Your task to perform on an android device: stop showing notifications on the lock screen Image 0: 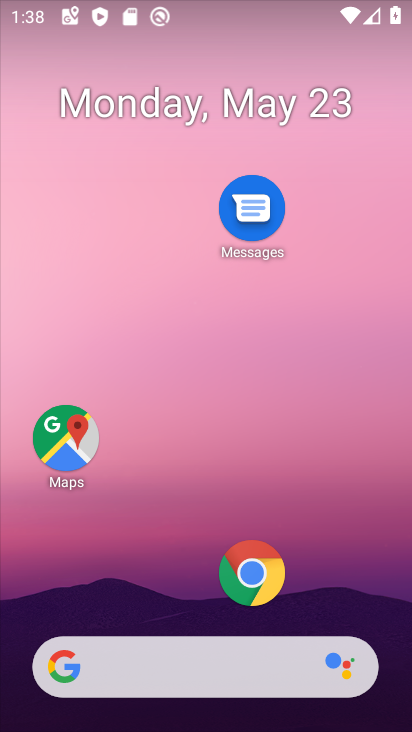
Step 0: drag from (149, 615) to (240, 89)
Your task to perform on an android device: stop showing notifications on the lock screen Image 1: 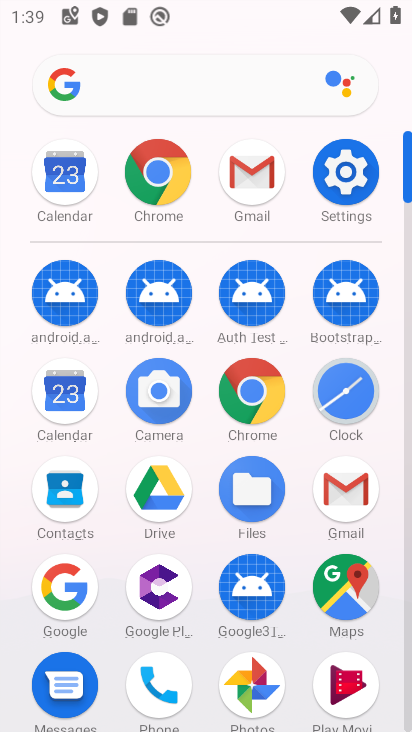
Step 1: click (324, 184)
Your task to perform on an android device: stop showing notifications on the lock screen Image 2: 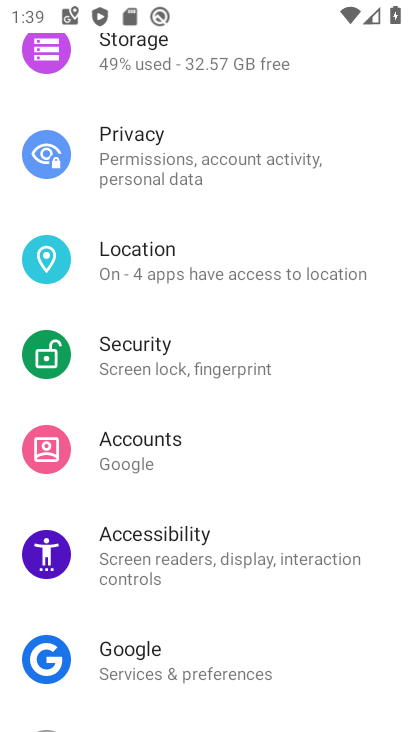
Step 2: drag from (299, 315) to (329, 612)
Your task to perform on an android device: stop showing notifications on the lock screen Image 3: 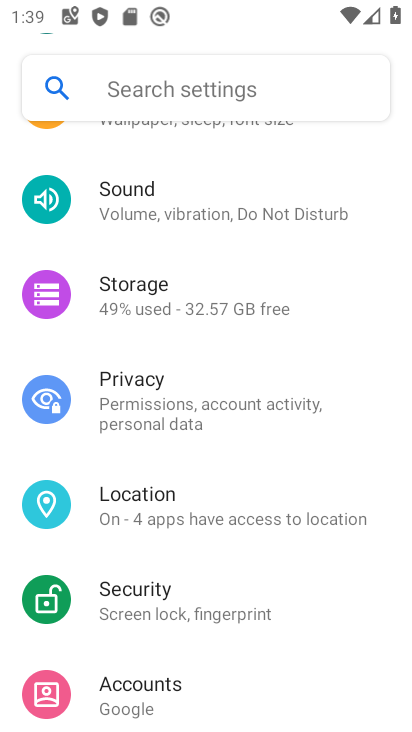
Step 3: drag from (293, 277) to (303, 604)
Your task to perform on an android device: stop showing notifications on the lock screen Image 4: 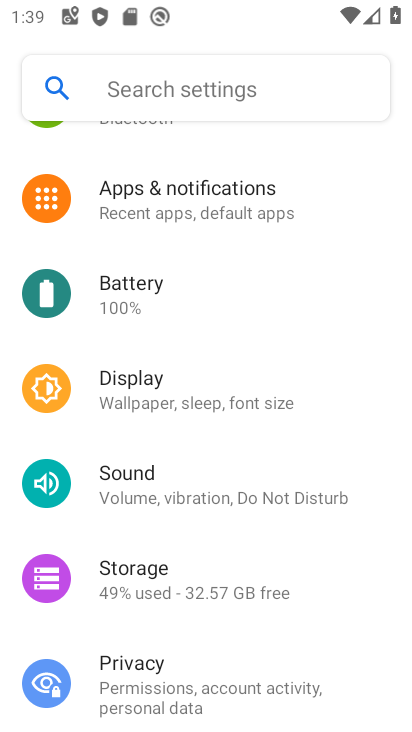
Step 4: drag from (288, 246) to (271, 183)
Your task to perform on an android device: stop showing notifications on the lock screen Image 5: 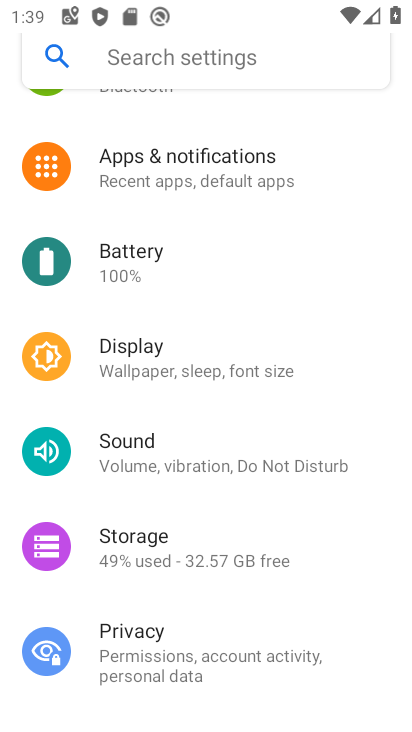
Step 5: click (264, 172)
Your task to perform on an android device: stop showing notifications on the lock screen Image 6: 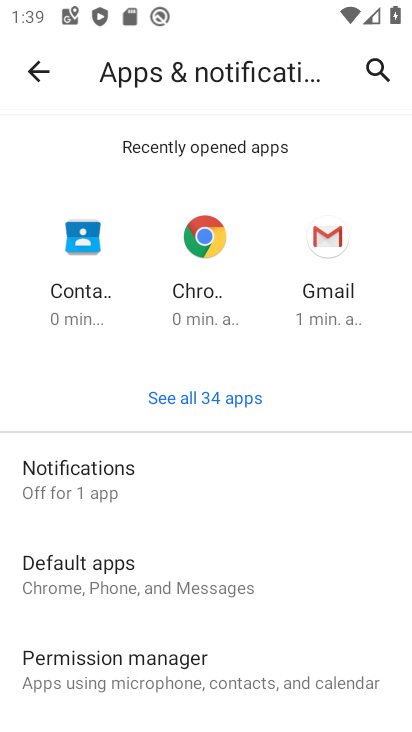
Step 6: drag from (252, 505) to (288, 183)
Your task to perform on an android device: stop showing notifications on the lock screen Image 7: 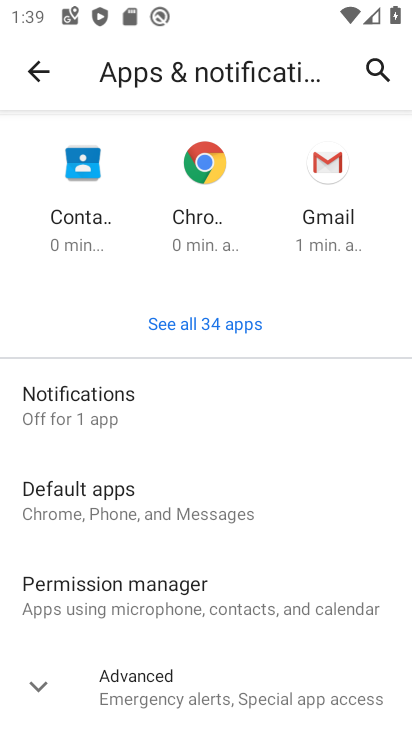
Step 7: click (191, 696)
Your task to perform on an android device: stop showing notifications on the lock screen Image 8: 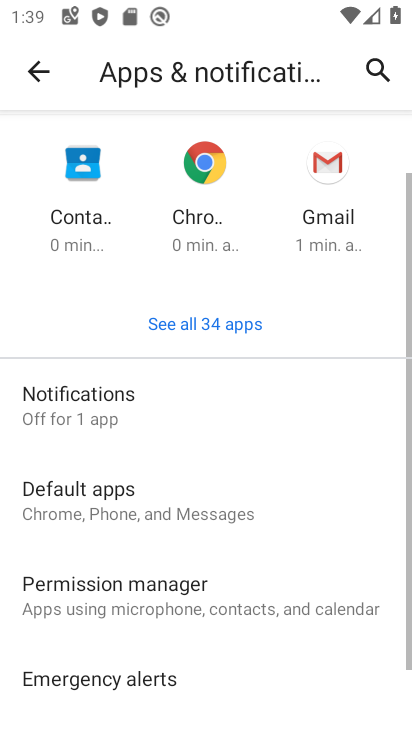
Step 8: drag from (337, 390) to (341, 254)
Your task to perform on an android device: stop showing notifications on the lock screen Image 9: 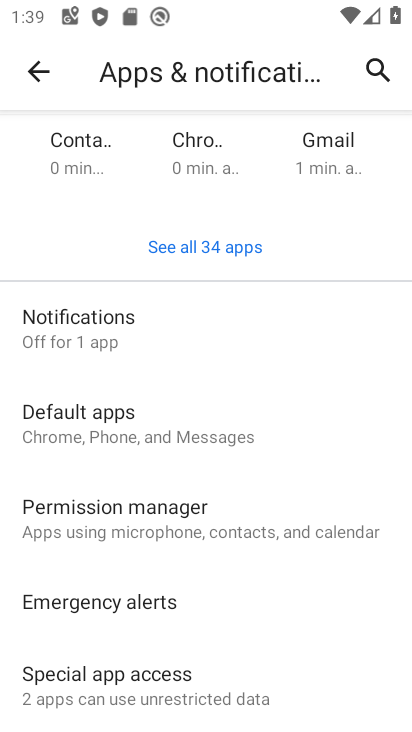
Step 9: click (110, 310)
Your task to perform on an android device: stop showing notifications on the lock screen Image 10: 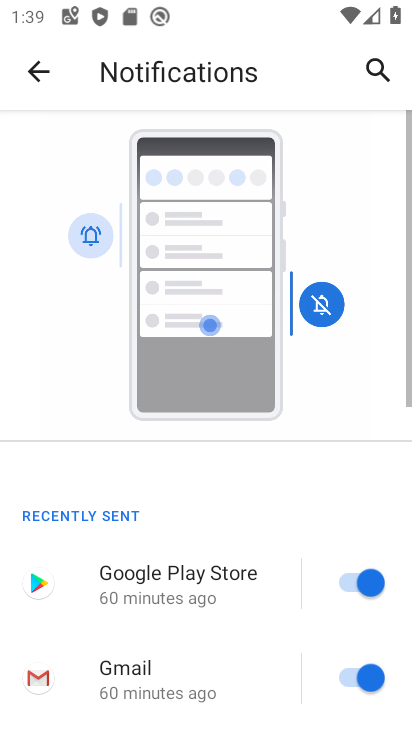
Step 10: drag from (305, 469) to (307, 205)
Your task to perform on an android device: stop showing notifications on the lock screen Image 11: 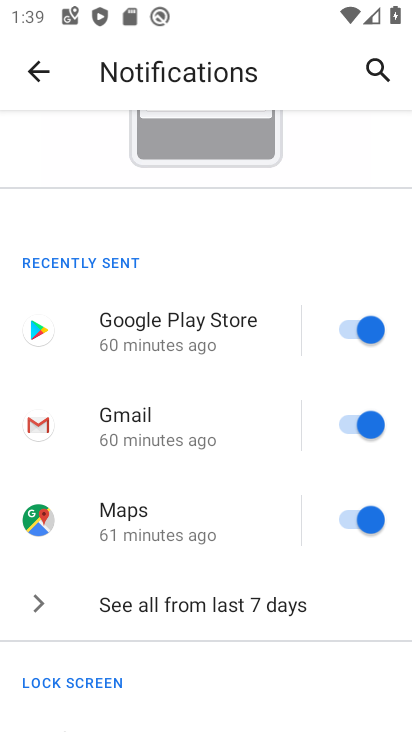
Step 11: drag from (237, 566) to (221, 261)
Your task to perform on an android device: stop showing notifications on the lock screen Image 12: 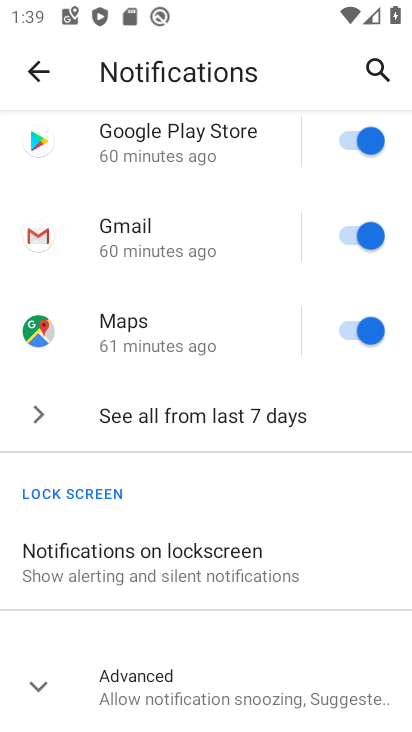
Step 12: click (197, 689)
Your task to perform on an android device: stop showing notifications on the lock screen Image 13: 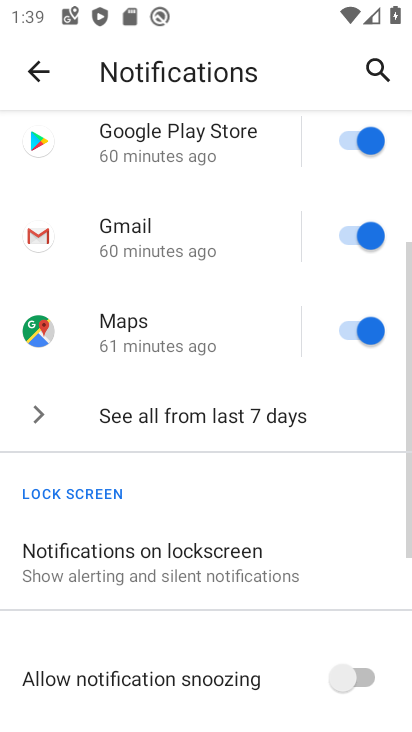
Step 13: drag from (262, 634) to (283, 391)
Your task to perform on an android device: stop showing notifications on the lock screen Image 14: 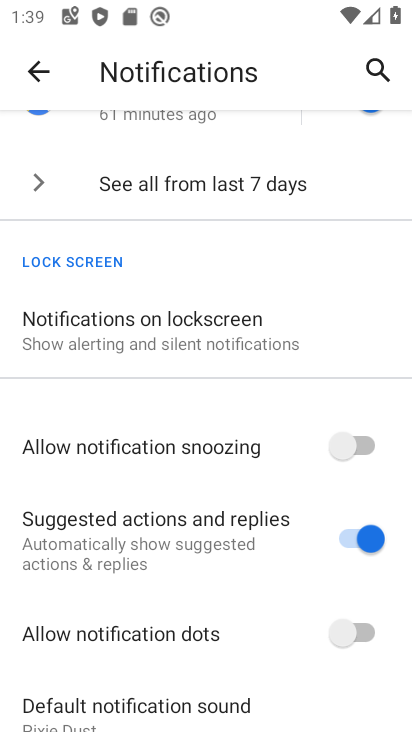
Step 14: click (183, 329)
Your task to perform on an android device: stop showing notifications on the lock screen Image 15: 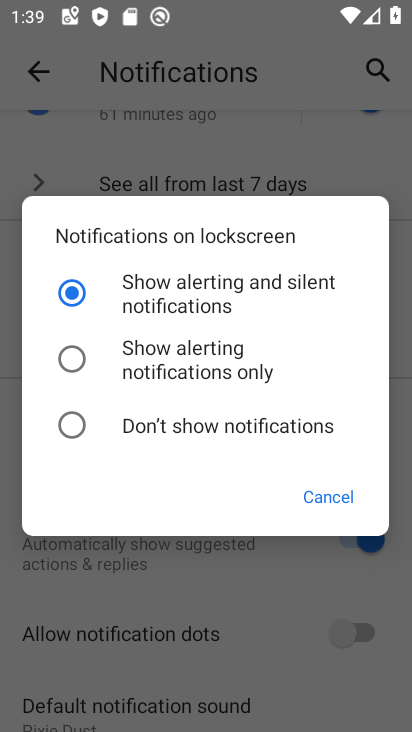
Step 15: click (79, 424)
Your task to perform on an android device: stop showing notifications on the lock screen Image 16: 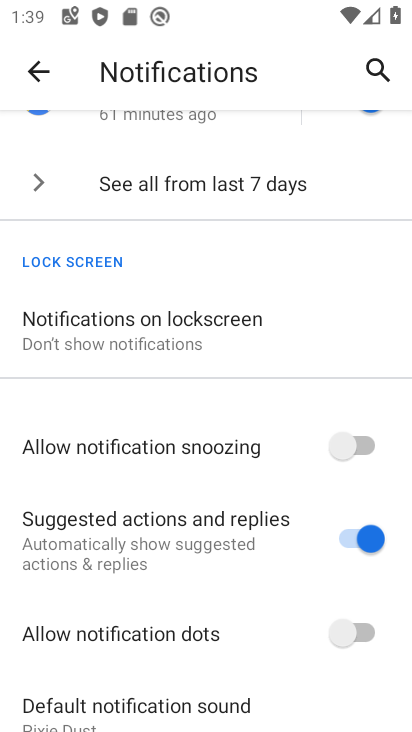
Step 16: task complete